Your task to perform on an android device: View the shopping cart on newegg.com. Add "razer blackwidow" to the cart on newegg.com Image 0: 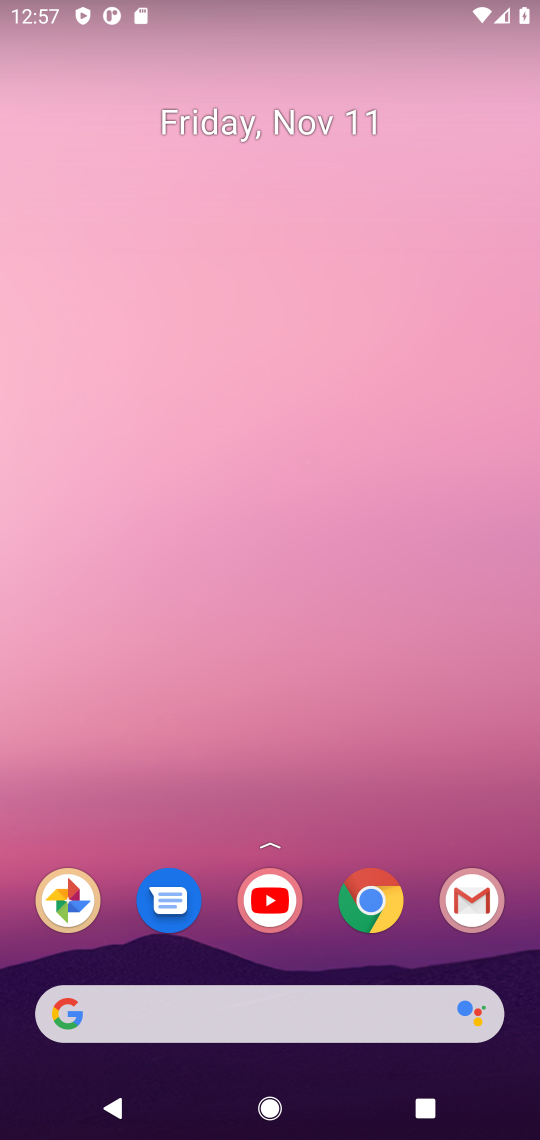
Step 0: click (383, 903)
Your task to perform on an android device: View the shopping cart on newegg.com. Add "razer blackwidow" to the cart on newegg.com Image 1: 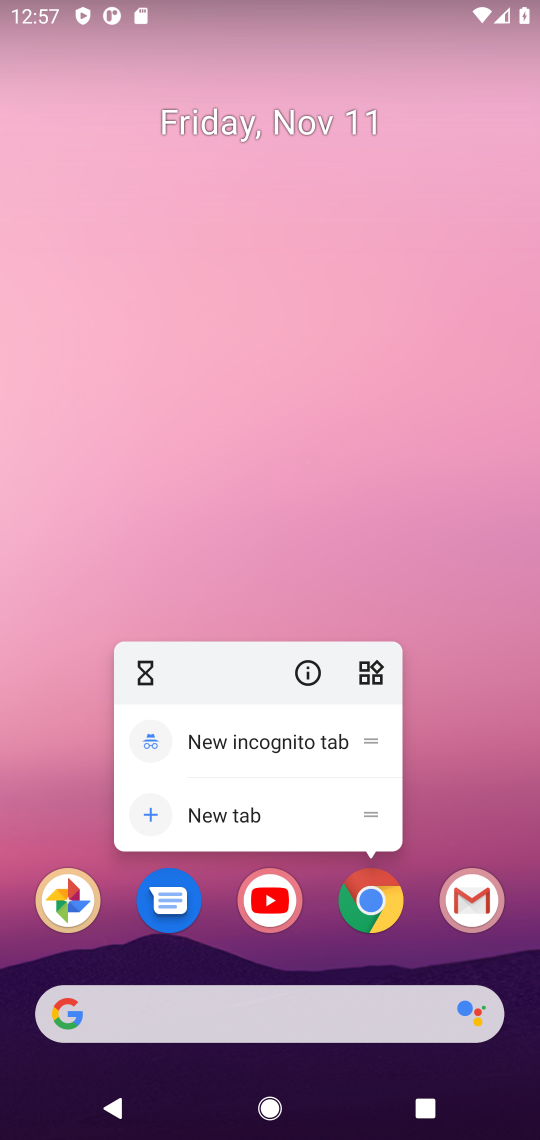
Step 1: click (363, 903)
Your task to perform on an android device: View the shopping cart on newegg.com. Add "razer blackwidow" to the cart on newegg.com Image 2: 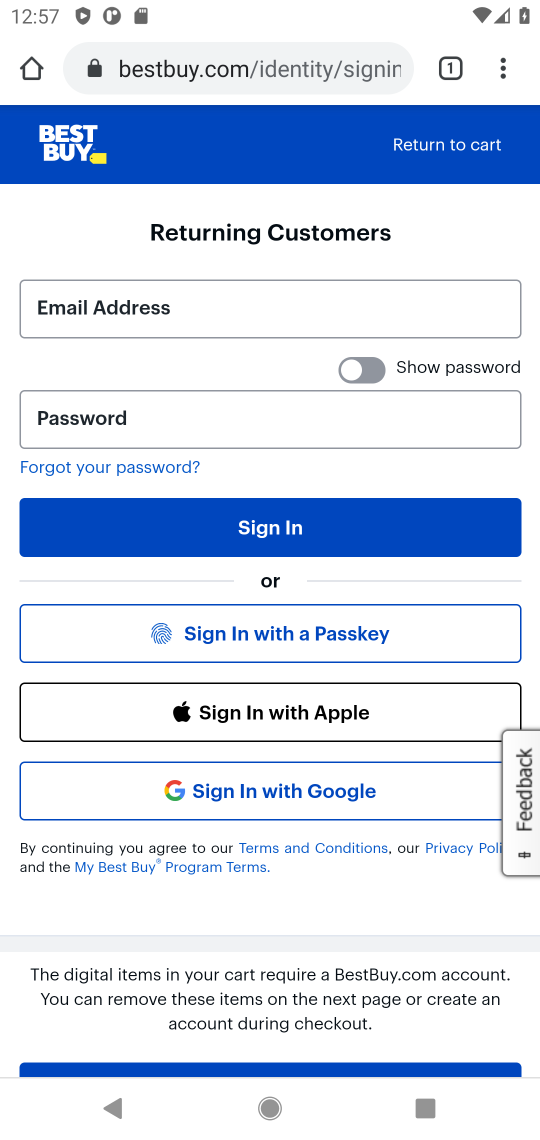
Step 2: click (280, 63)
Your task to perform on an android device: View the shopping cart on newegg.com. Add "razer blackwidow" to the cart on newegg.com Image 3: 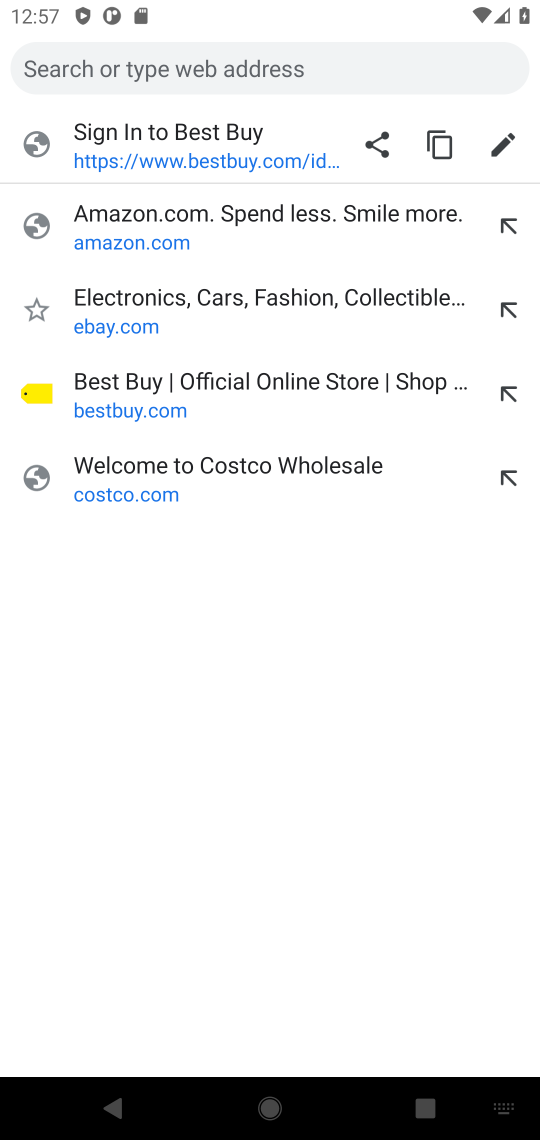
Step 3: type " newegg.com"
Your task to perform on an android device: View the shopping cart on newegg.com. Add "razer blackwidow" to the cart on newegg.com Image 4: 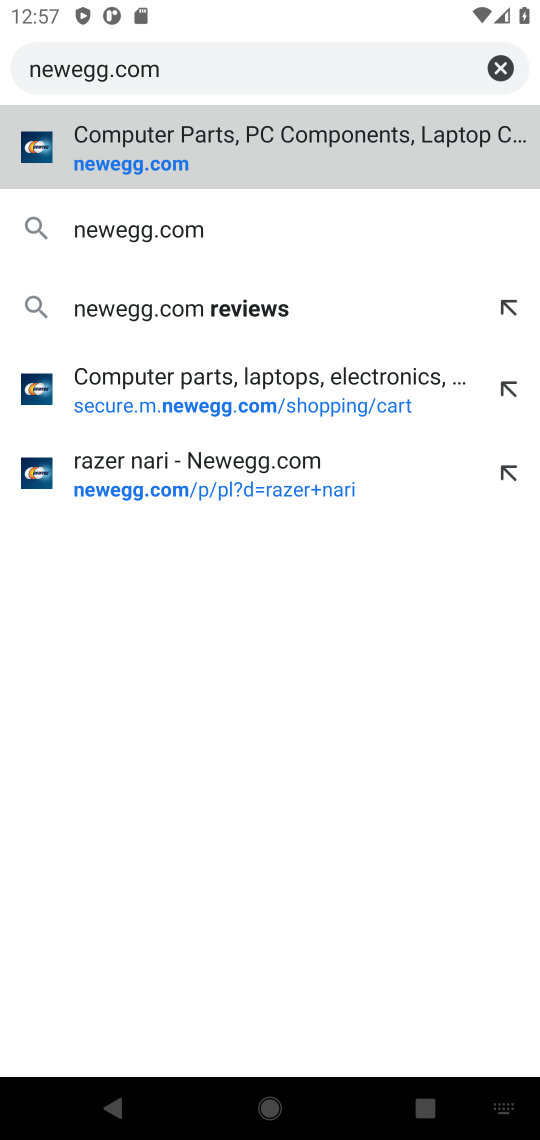
Step 4: press enter
Your task to perform on an android device: View the shopping cart on newegg.com. Add "razer blackwidow" to the cart on newegg.com Image 5: 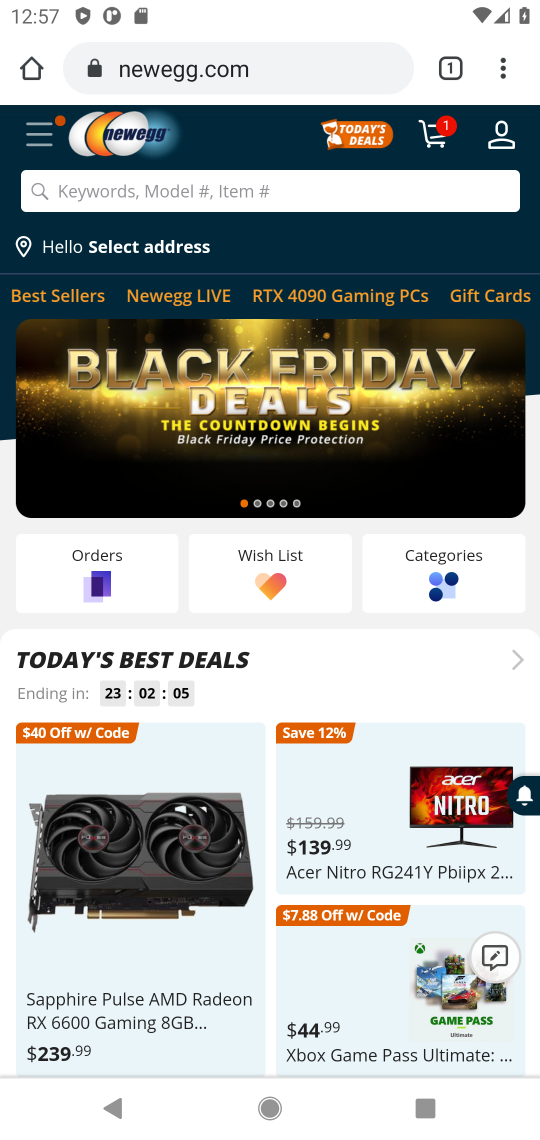
Step 5: click (165, 190)
Your task to perform on an android device: View the shopping cart on newegg.com. Add "razer blackwidow" to the cart on newegg.com Image 6: 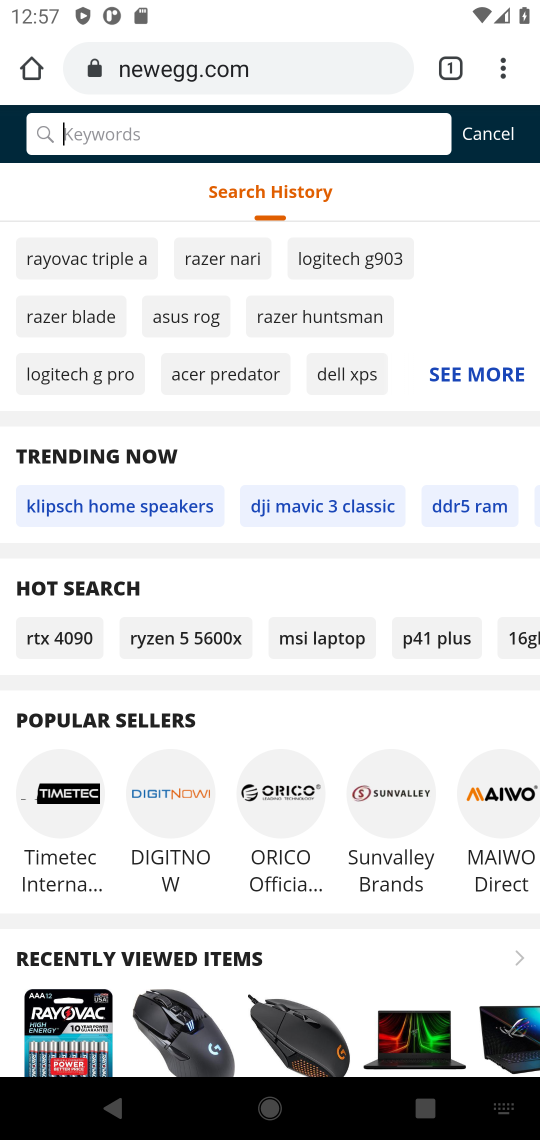
Step 6: click (202, 129)
Your task to perform on an android device: View the shopping cart on newegg.com. Add "razer blackwidow" to the cart on newegg.com Image 7: 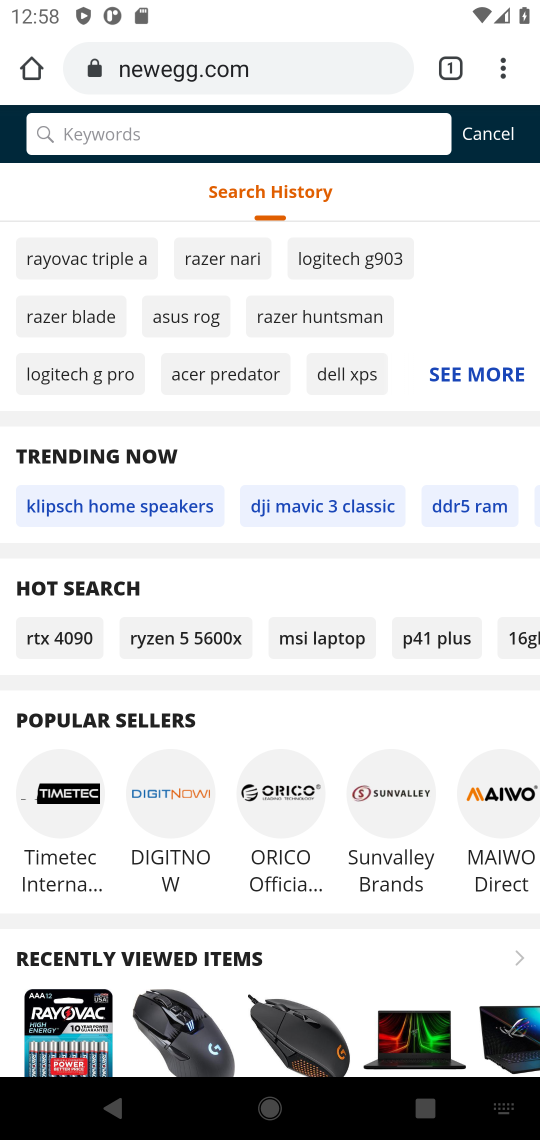
Step 7: type "razer blackwidow"
Your task to perform on an android device: View the shopping cart on newegg.com. Add "razer blackwidow" to the cart on newegg.com Image 8: 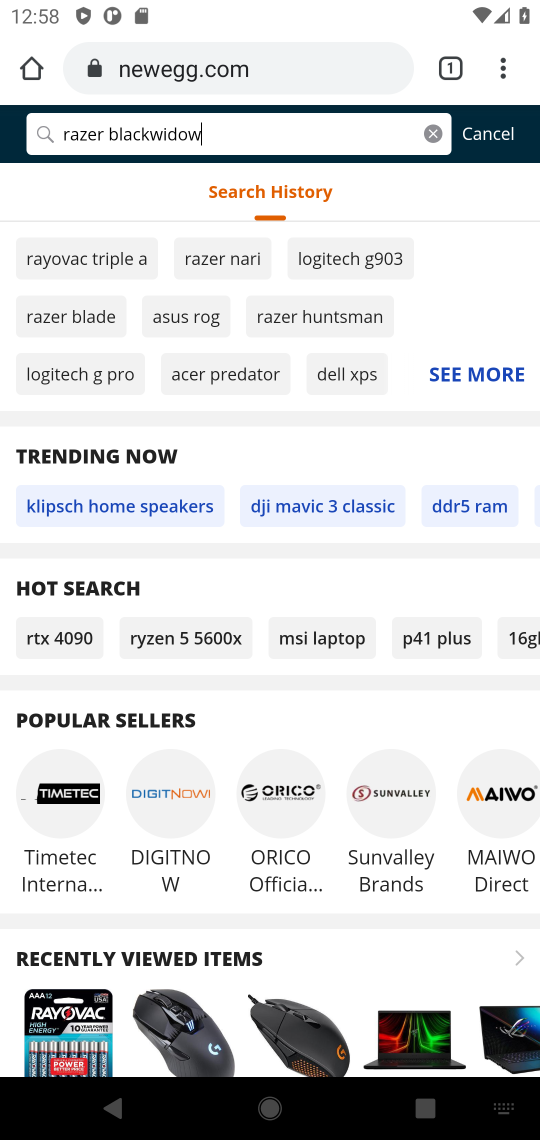
Step 8: press enter
Your task to perform on an android device: View the shopping cart on newegg.com. Add "razer blackwidow" to the cart on newegg.com Image 9: 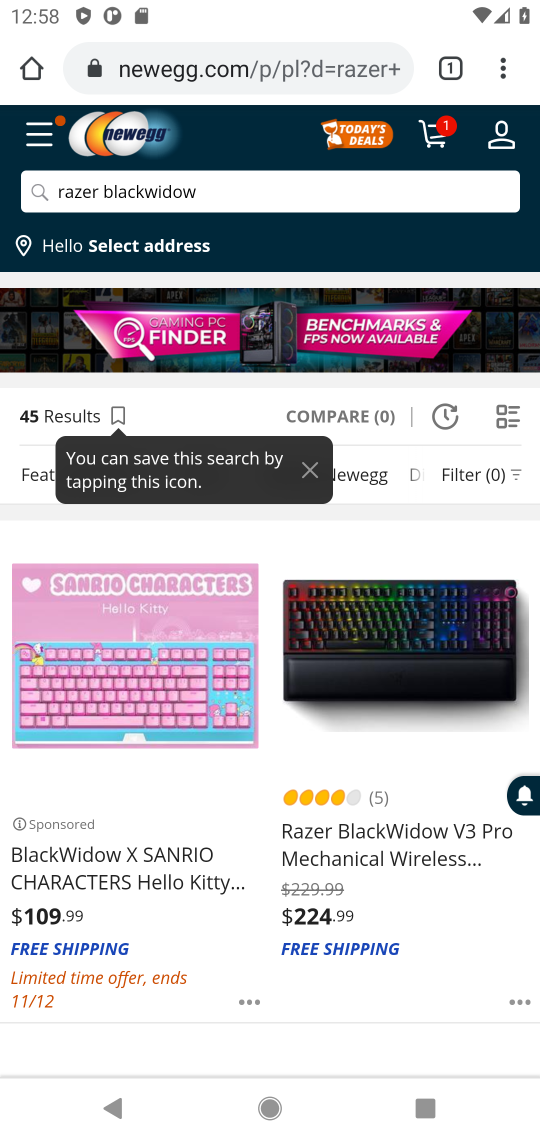
Step 9: click (354, 835)
Your task to perform on an android device: View the shopping cart on newegg.com. Add "razer blackwidow" to the cart on newegg.com Image 10: 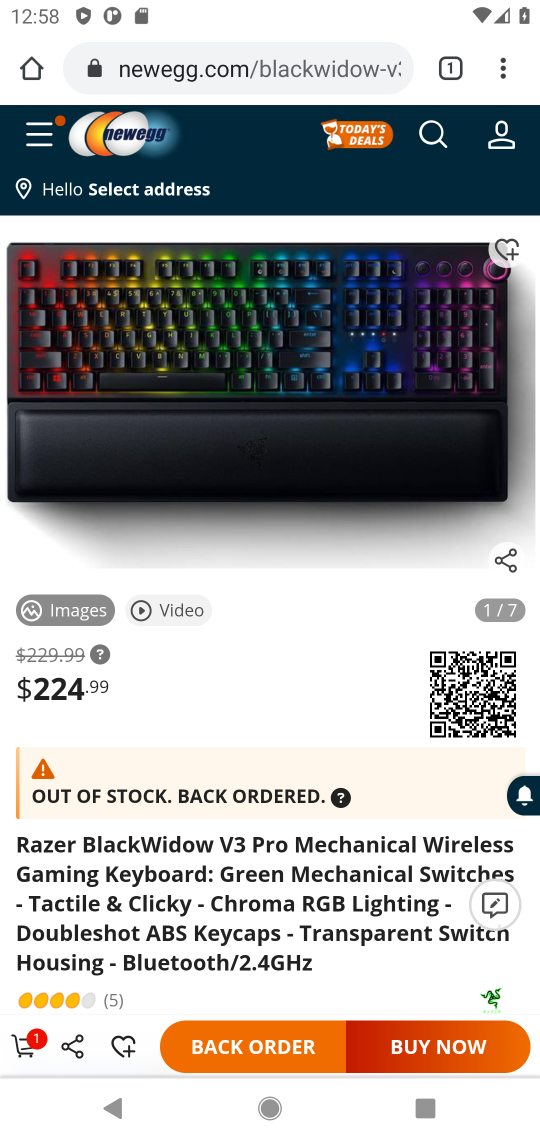
Step 10: click (248, 1052)
Your task to perform on an android device: View the shopping cart on newegg.com. Add "razer blackwidow" to the cart on newegg.com Image 11: 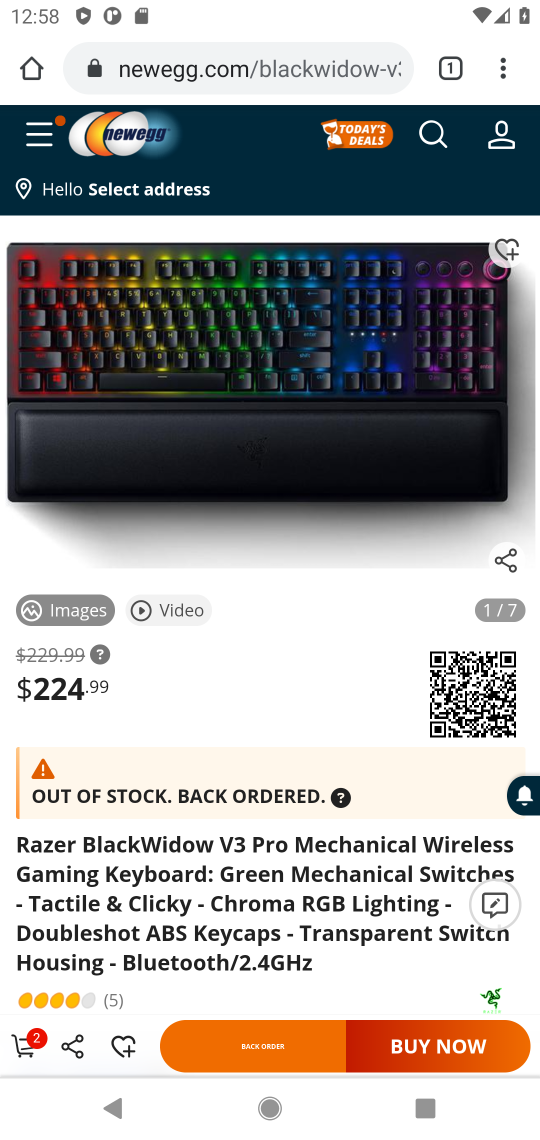
Step 11: click (30, 1042)
Your task to perform on an android device: View the shopping cart on newegg.com. Add "razer blackwidow" to the cart on newegg.com Image 12: 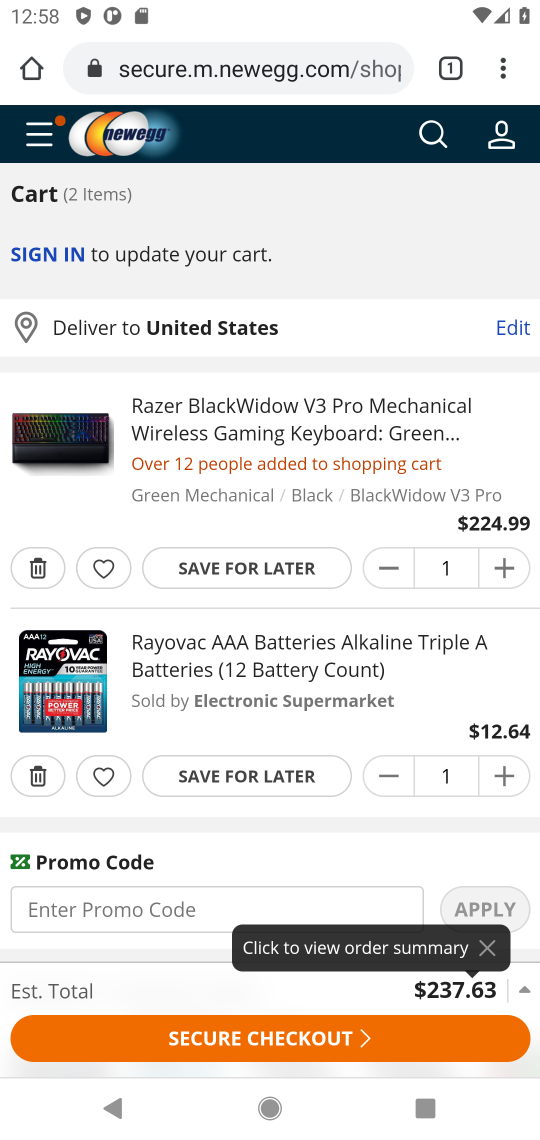
Step 12: click (32, 773)
Your task to perform on an android device: View the shopping cart on newegg.com. Add "razer blackwidow" to the cart on newegg.com Image 13: 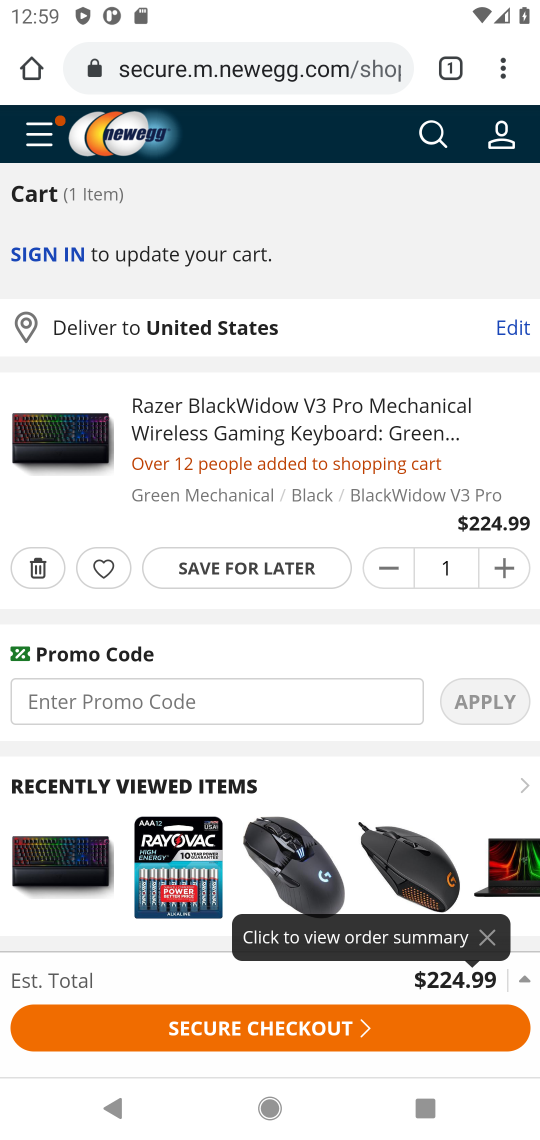
Step 13: task complete